Your task to perform on an android device: check battery use Image 0: 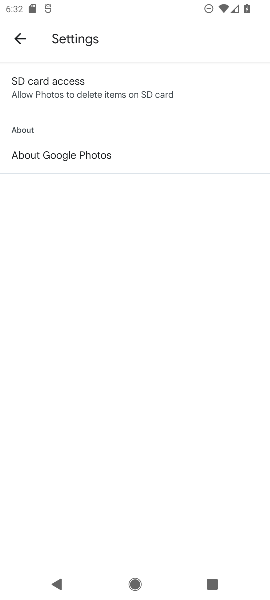
Step 0: press home button
Your task to perform on an android device: check battery use Image 1: 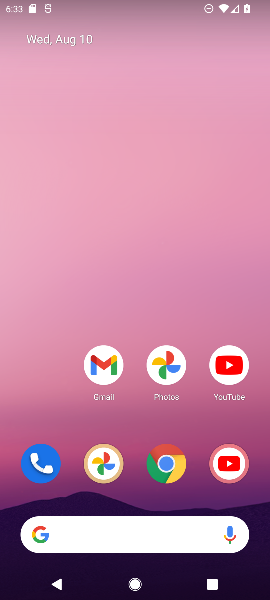
Step 1: drag from (128, 427) to (133, 123)
Your task to perform on an android device: check battery use Image 2: 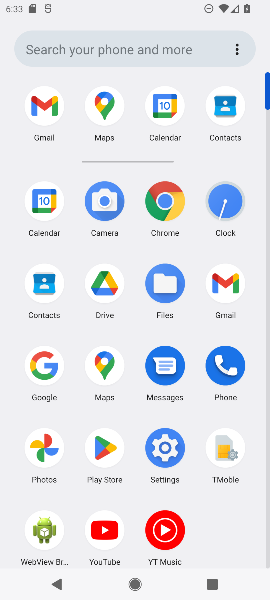
Step 2: click (166, 445)
Your task to perform on an android device: check battery use Image 3: 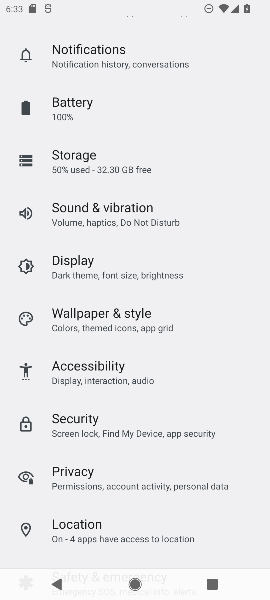
Step 3: click (60, 101)
Your task to perform on an android device: check battery use Image 4: 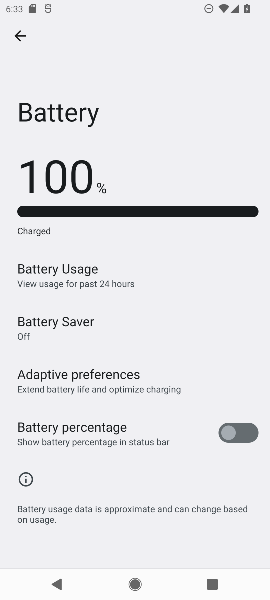
Step 4: task complete